Your task to perform on an android device: Open the map Image 0: 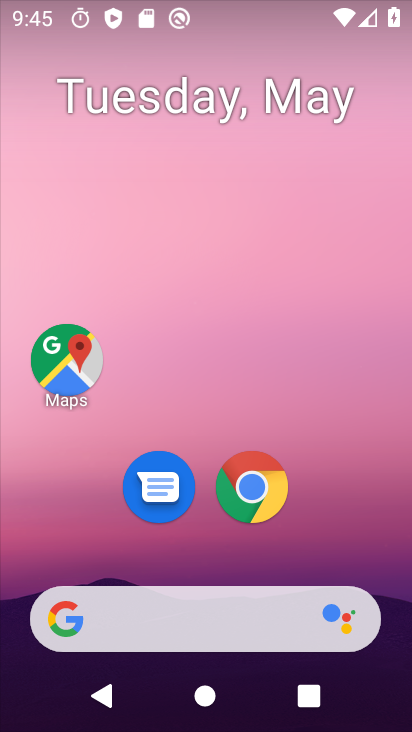
Step 0: drag from (191, 556) to (191, 109)
Your task to perform on an android device: Open the map Image 1: 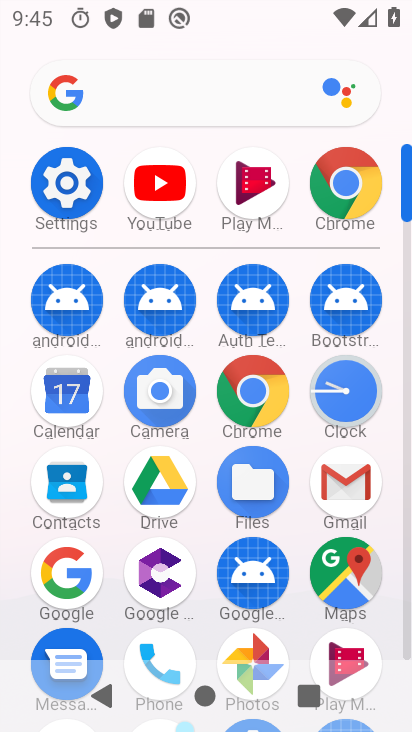
Step 1: click (331, 586)
Your task to perform on an android device: Open the map Image 2: 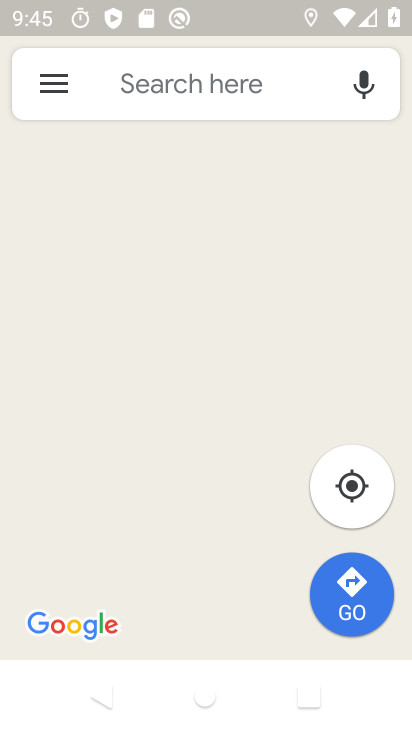
Step 2: task complete